Your task to perform on an android device: Show me popular videos on Youtube Image 0: 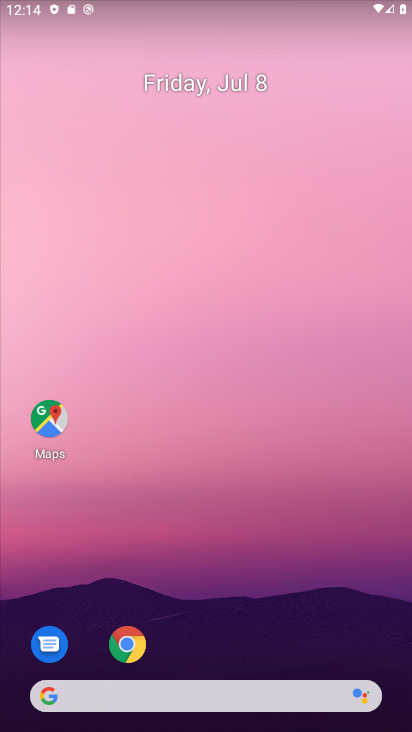
Step 0: drag from (212, 693) to (160, 263)
Your task to perform on an android device: Show me popular videos on Youtube Image 1: 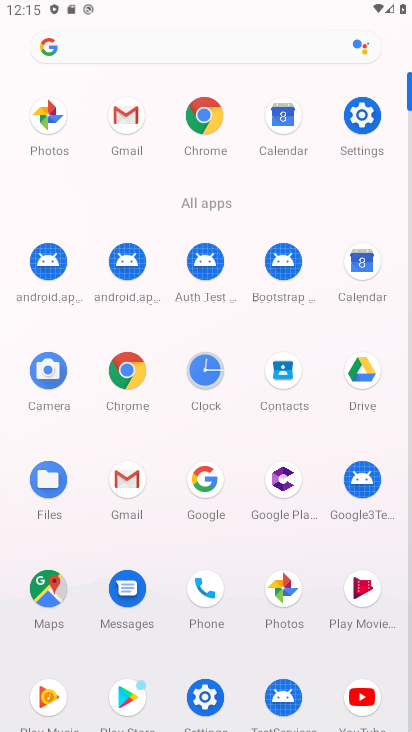
Step 1: click (365, 698)
Your task to perform on an android device: Show me popular videos on Youtube Image 2: 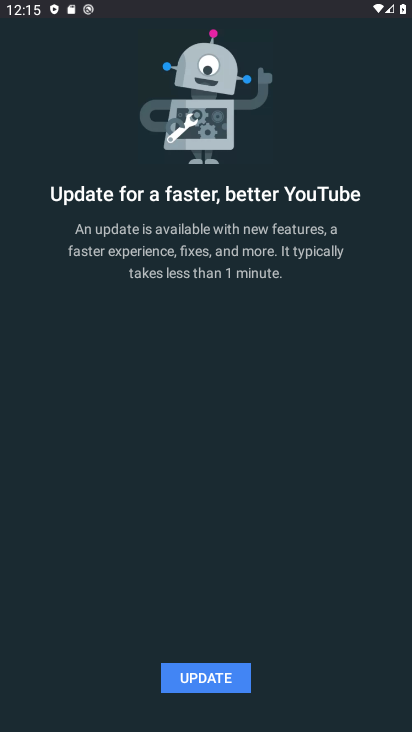
Step 2: click (223, 686)
Your task to perform on an android device: Show me popular videos on Youtube Image 3: 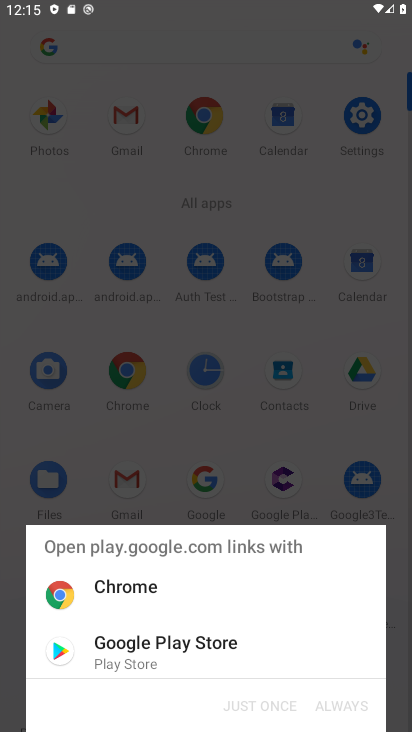
Step 3: click (151, 660)
Your task to perform on an android device: Show me popular videos on Youtube Image 4: 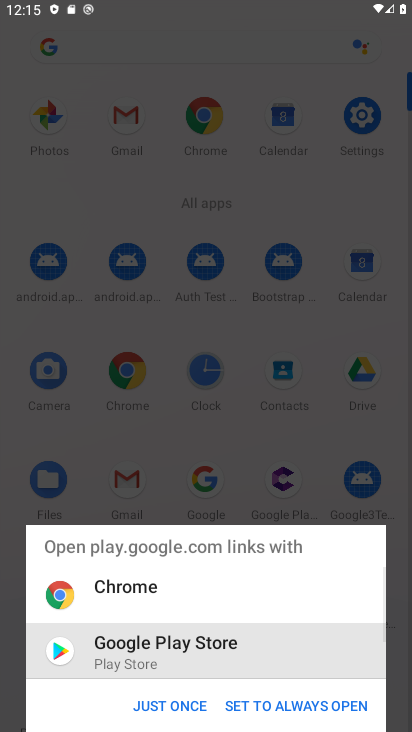
Step 4: click (142, 708)
Your task to perform on an android device: Show me popular videos on Youtube Image 5: 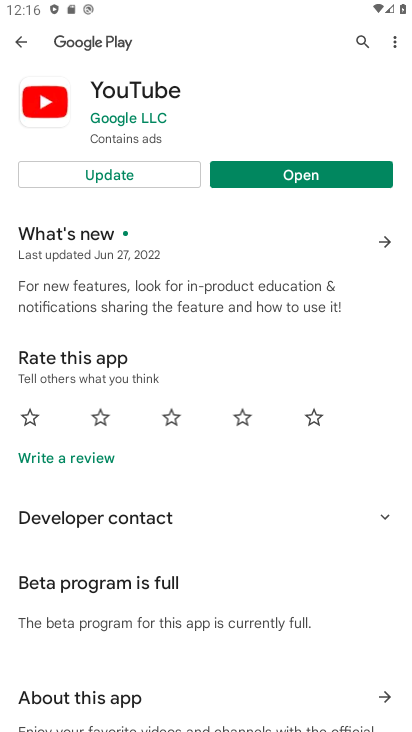
Step 5: click (133, 167)
Your task to perform on an android device: Show me popular videos on Youtube Image 6: 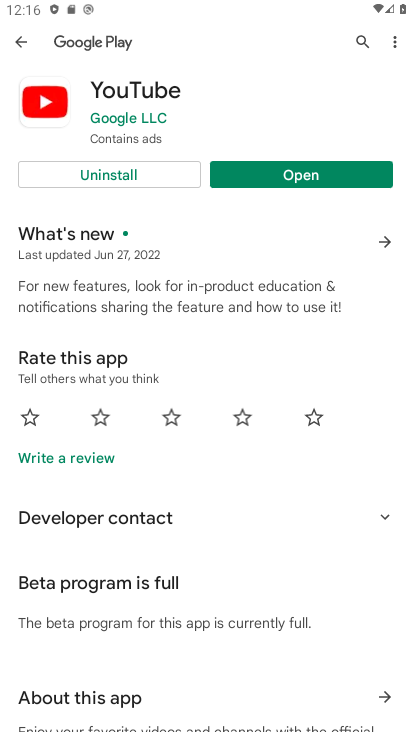
Step 6: click (271, 164)
Your task to perform on an android device: Show me popular videos on Youtube Image 7: 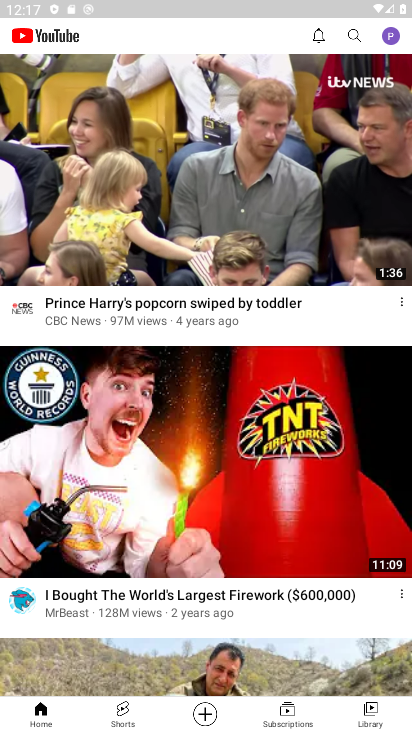
Step 7: drag from (156, 189) to (142, 555)
Your task to perform on an android device: Show me popular videos on Youtube Image 8: 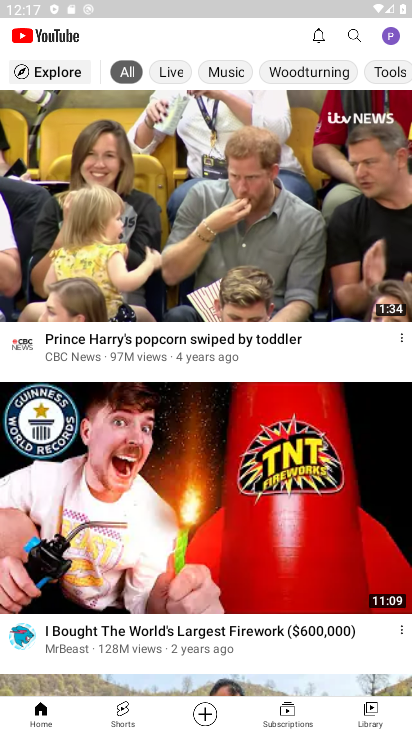
Step 8: click (63, 72)
Your task to perform on an android device: Show me popular videos on Youtube Image 9: 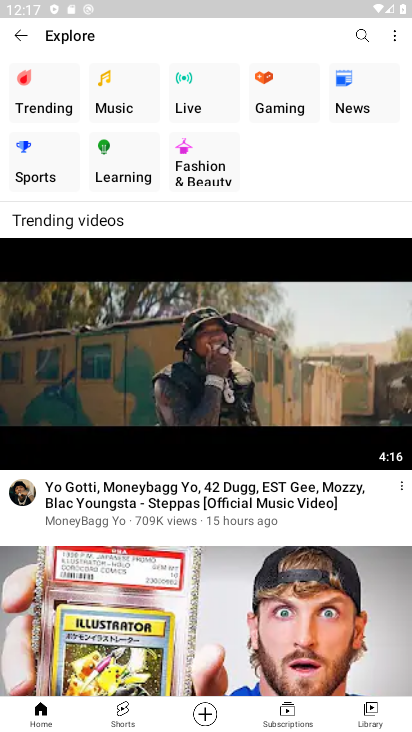
Step 9: click (44, 104)
Your task to perform on an android device: Show me popular videos on Youtube Image 10: 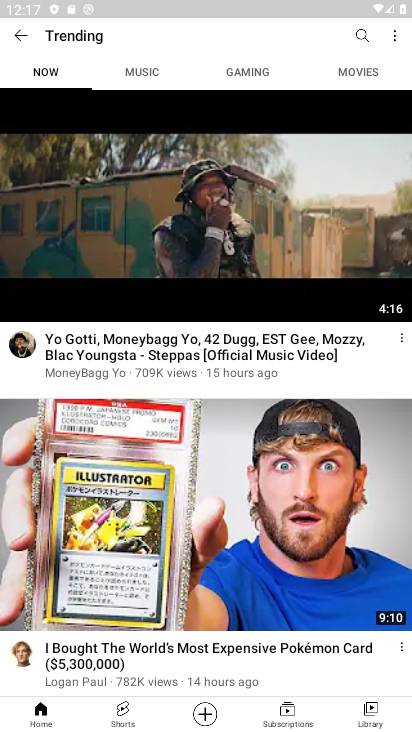
Step 10: task complete